Your task to perform on an android device: Open the calendar and show me this week's events? Image 0: 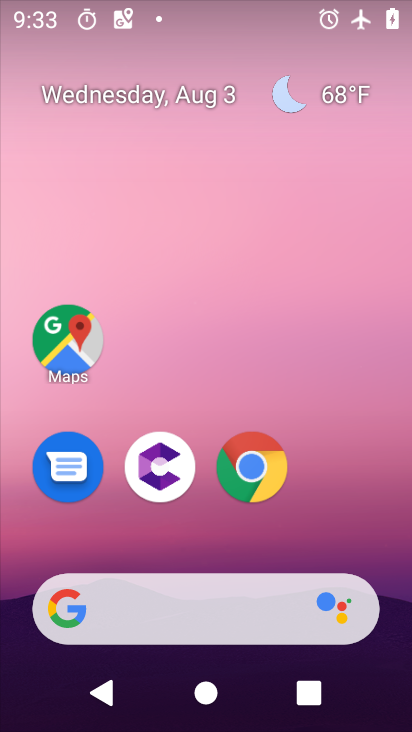
Step 0: drag from (356, 471) to (281, 119)
Your task to perform on an android device: Open the calendar and show me this week's events? Image 1: 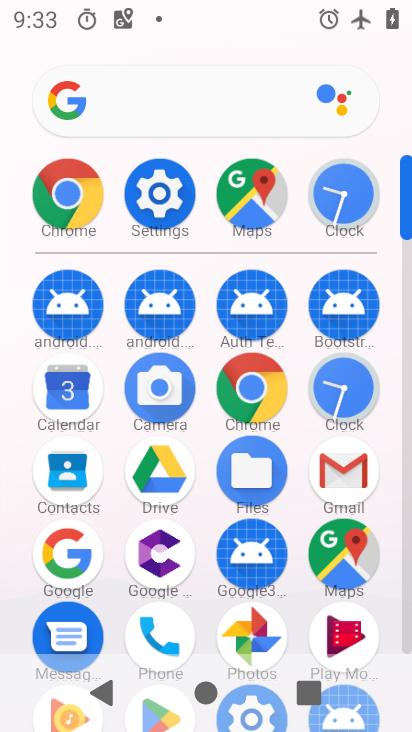
Step 1: click (85, 387)
Your task to perform on an android device: Open the calendar and show me this week's events? Image 2: 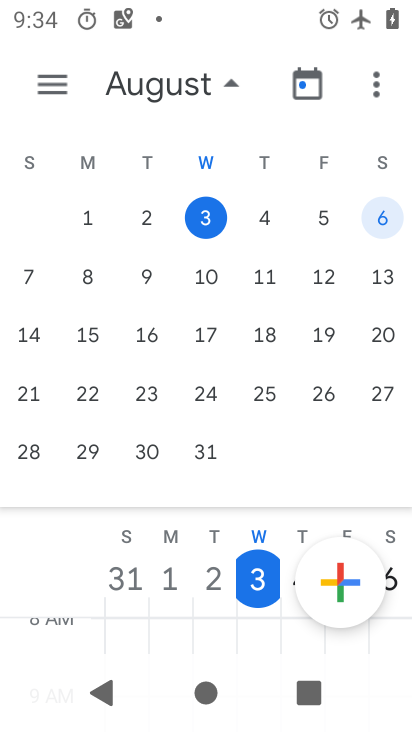
Step 2: task complete